Your task to perform on an android device: turn off priority inbox in the gmail app Image 0: 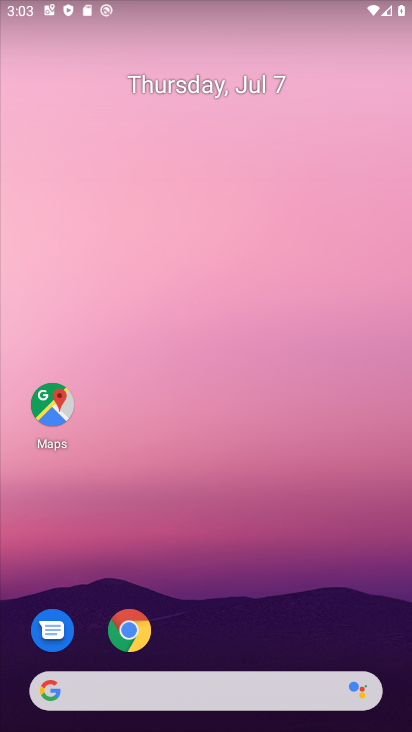
Step 0: drag from (225, 628) to (237, 77)
Your task to perform on an android device: turn off priority inbox in the gmail app Image 1: 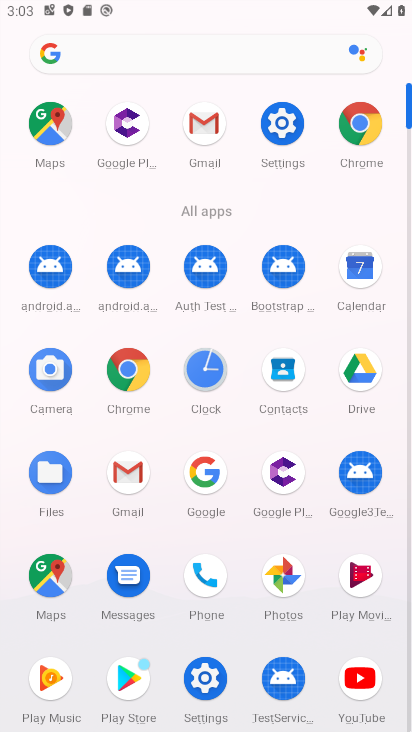
Step 1: click (140, 488)
Your task to perform on an android device: turn off priority inbox in the gmail app Image 2: 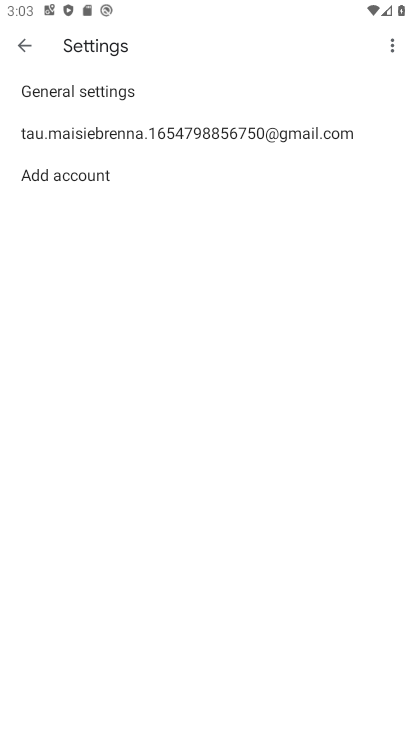
Step 2: click (120, 136)
Your task to perform on an android device: turn off priority inbox in the gmail app Image 3: 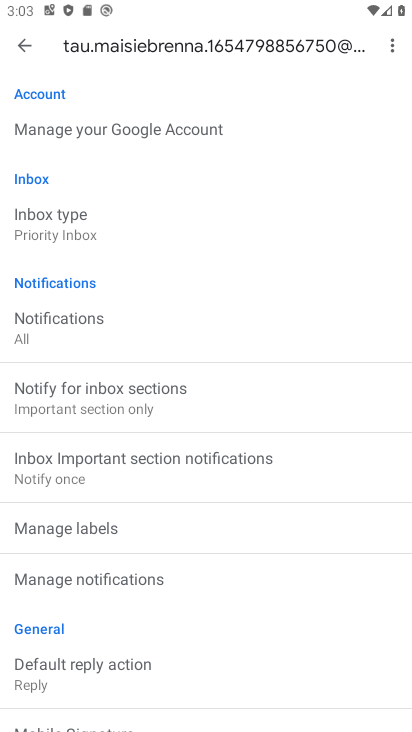
Step 3: click (94, 226)
Your task to perform on an android device: turn off priority inbox in the gmail app Image 4: 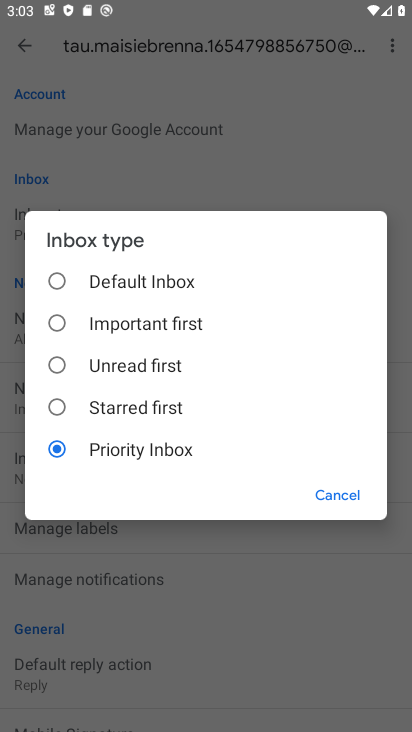
Step 4: click (164, 282)
Your task to perform on an android device: turn off priority inbox in the gmail app Image 5: 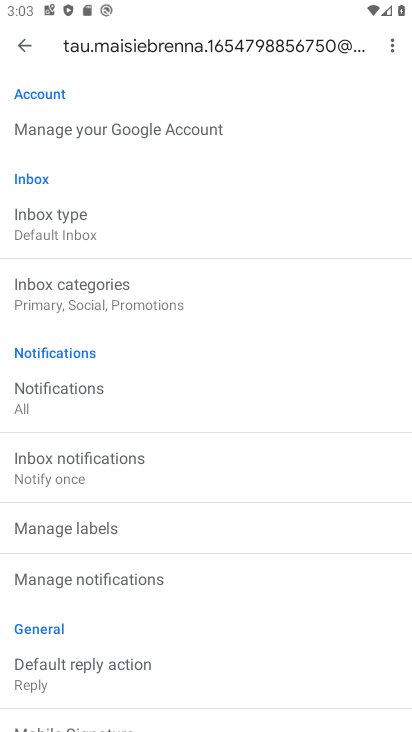
Step 5: task complete